Your task to perform on an android device: turn off data saver in the chrome app Image 0: 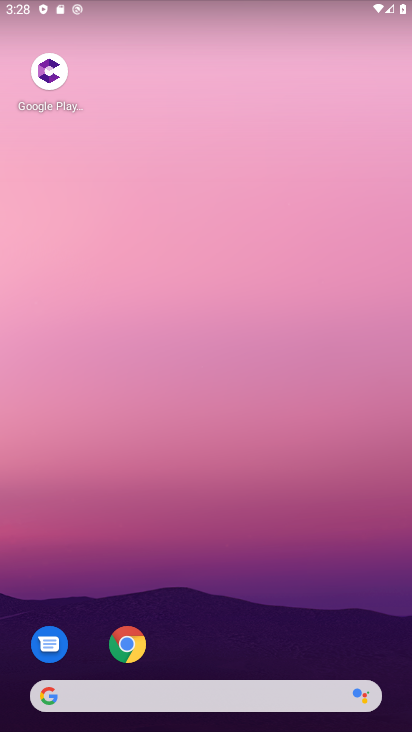
Step 0: click (116, 653)
Your task to perform on an android device: turn off data saver in the chrome app Image 1: 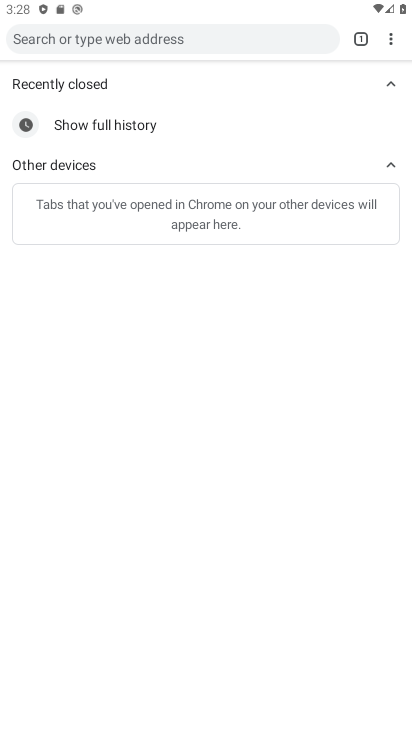
Step 1: click (394, 43)
Your task to perform on an android device: turn off data saver in the chrome app Image 2: 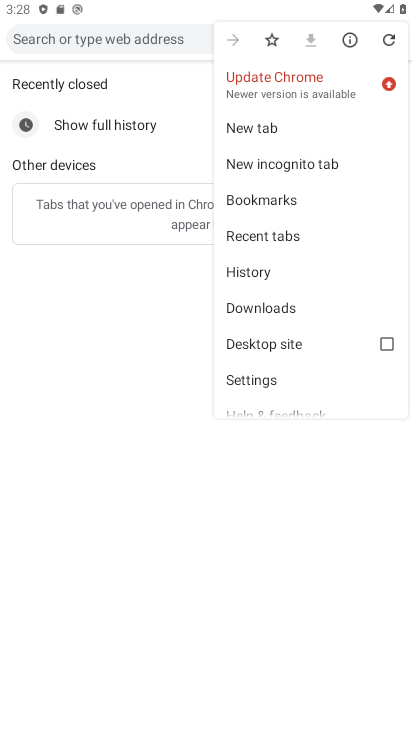
Step 2: click (261, 383)
Your task to perform on an android device: turn off data saver in the chrome app Image 3: 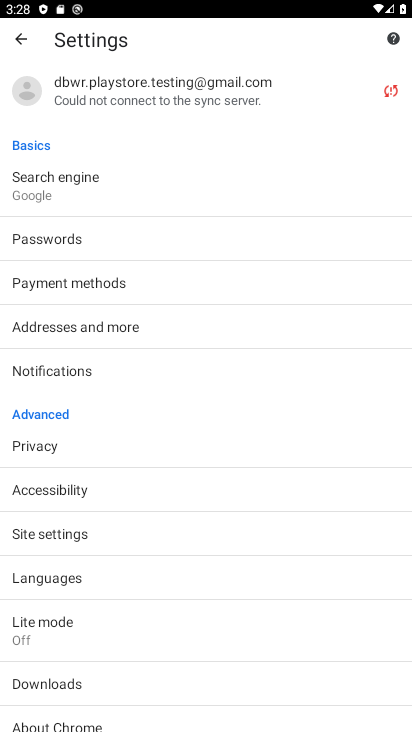
Step 3: click (28, 648)
Your task to perform on an android device: turn off data saver in the chrome app Image 4: 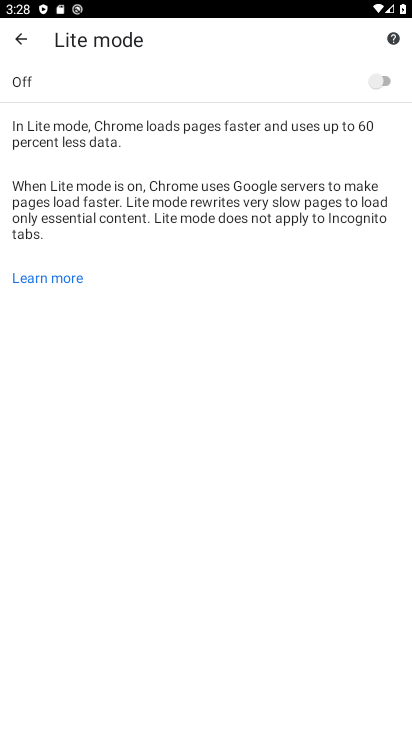
Step 4: task complete